Your task to perform on an android device: turn on improve location accuracy Image 0: 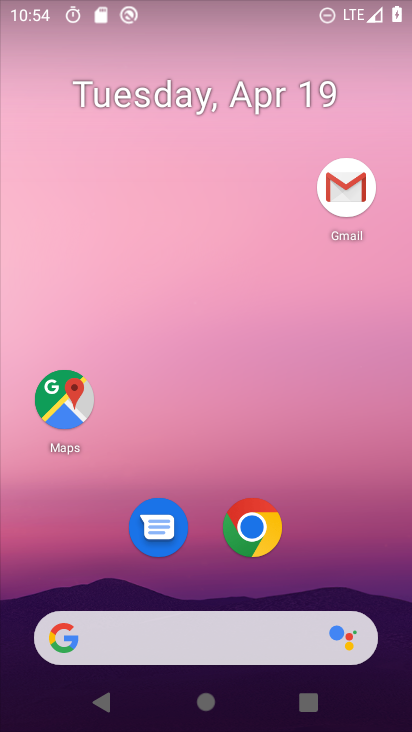
Step 0: drag from (367, 545) to (362, 119)
Your task to perform on an android device: turn on improve location accuracy Image 1: 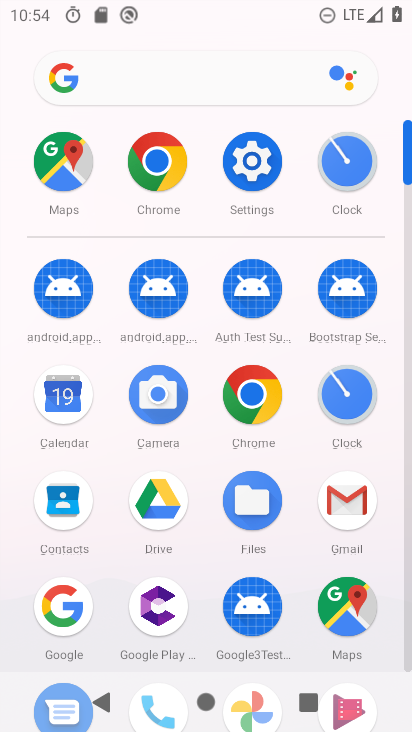
Step 1: drag from (383, 540) to (372, 296)
Your task to perform on an android device: turn on improve location accuracy Image 2: 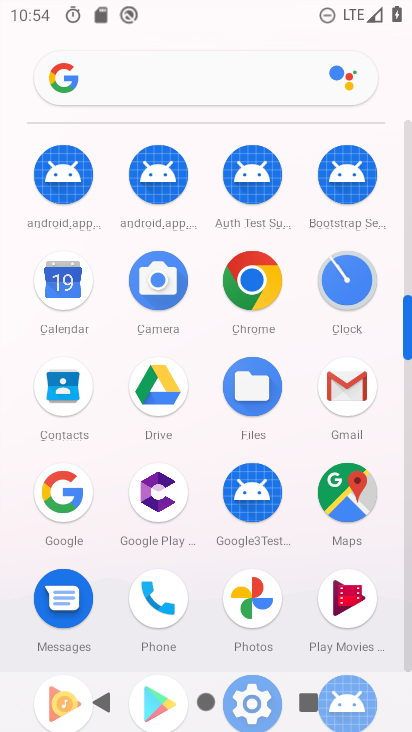
Step 2: drag from (293, 543) to (316, 297)
Your task to perform on an android device: turn on improve location accuracy Image 3: 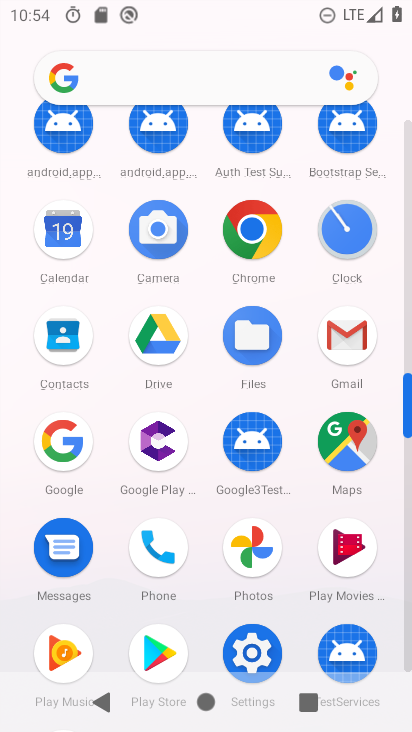
Step 3: click (262, 643)
Your task to perform on an android device: turn on improve location accuracy Image 4: 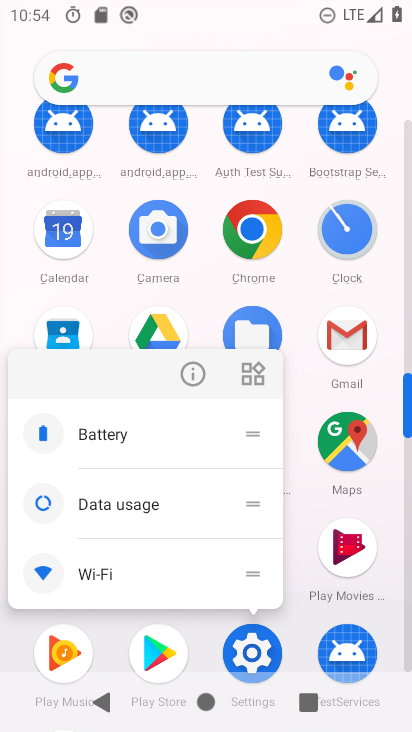
Step 4: click (262, 643)
Your task to perform on an android device: turn on improve location accuracy Image 5: 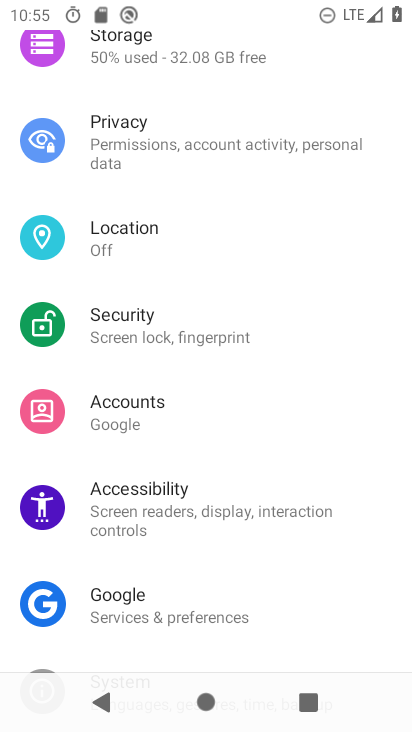
Step 5: click (134, 228)
Your task to perform on an android device: turn on improve location accuracy Image 6: 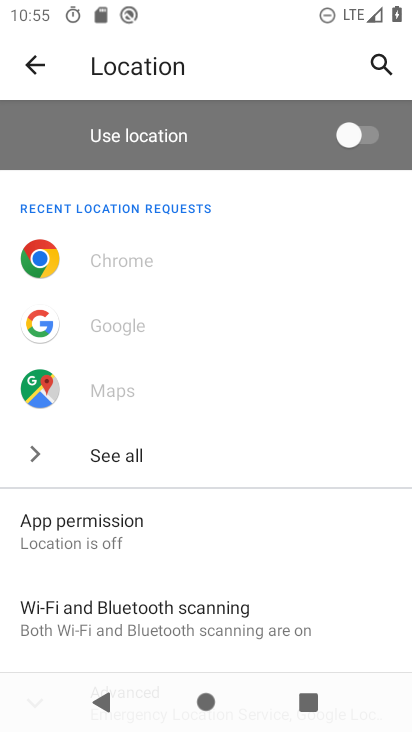
Step 6: drag from (277, 551) to (275, 265)
Your task to perform on an android device: turn on improve location accuracy Image 7: 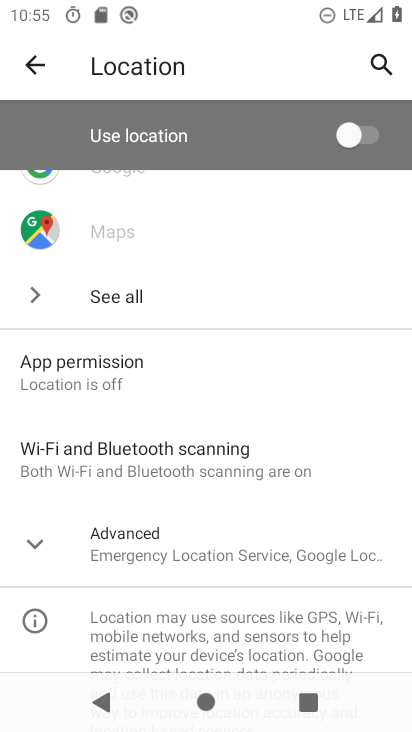
Step 7: click (263, 561)
Your task to perform on an android device: turn on improve location accuracy Image 8: 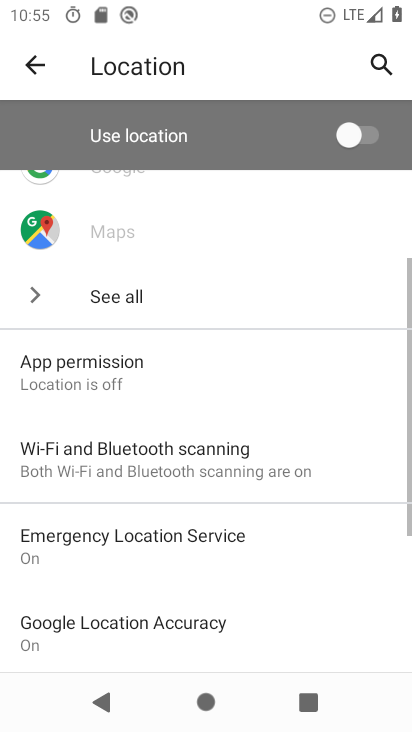
Step 8: drag from (279, 544) to (285, 326)
Your task to perform on an android device: turn on improve location accuracy Image 9: 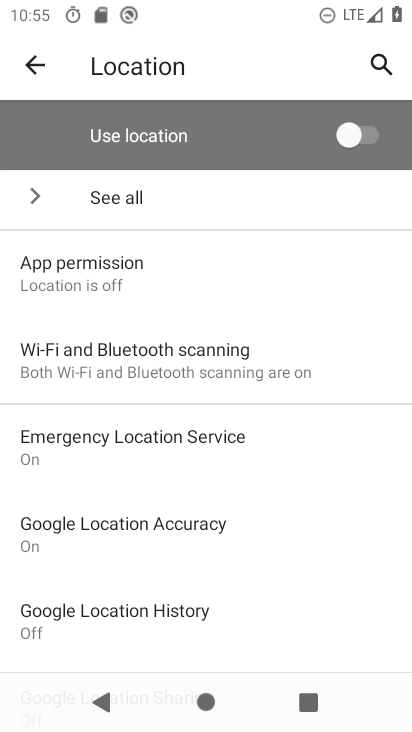
Step 9: click (201, 525)
Your task to perform on an android device: turn on improve location accuracy Image 10: 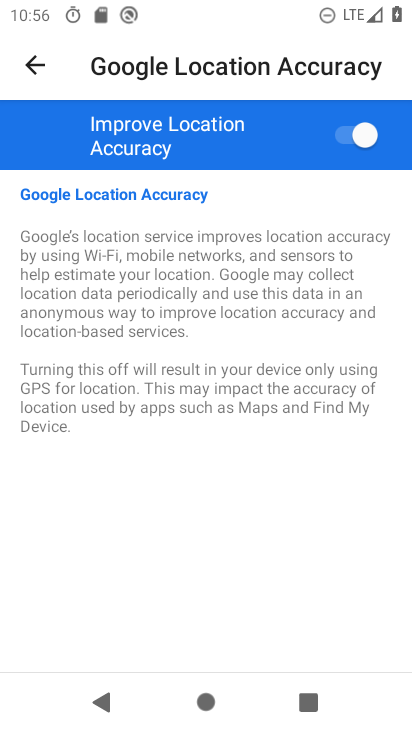
Step 10: task complete